Your task to perform on an android device: change the clock display to show seconds Image 0: 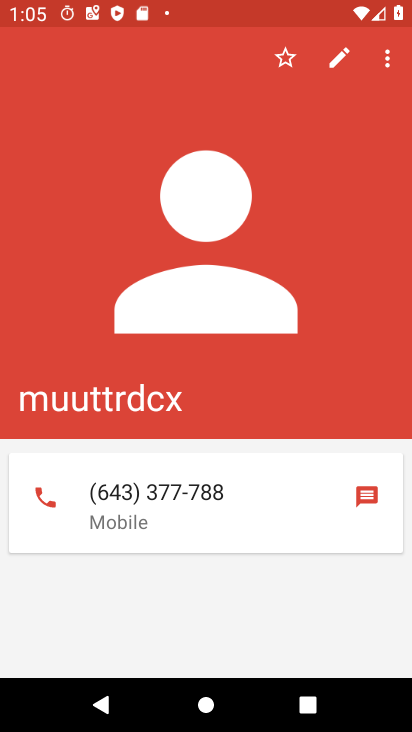
Step 0: press home button
Your task to perform on an android device: change the clock display to show seconds Image 1: 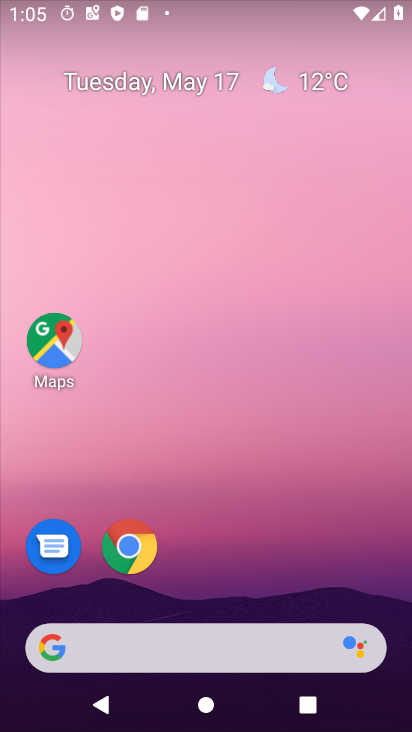
Step 1: drag from (200, 638) to (345, 96)
Your task to perform on an android device: change the clock display to show seconds Image 2: 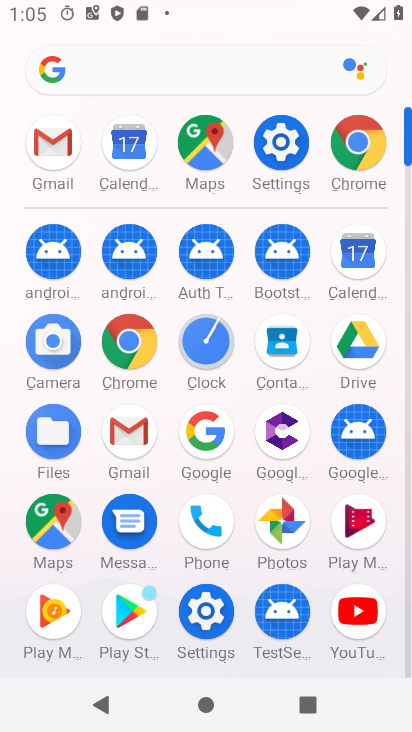
Step 2: click (208, 350)
Your task to perform on an android device: change the clock display to show seconds Image 3: 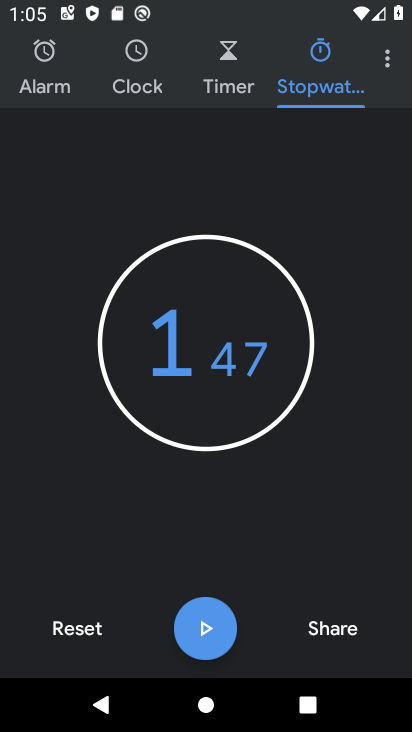
Step 3: click (389, 59)
Your task to perform on an android device: change the clock display to show seconds Image 4: 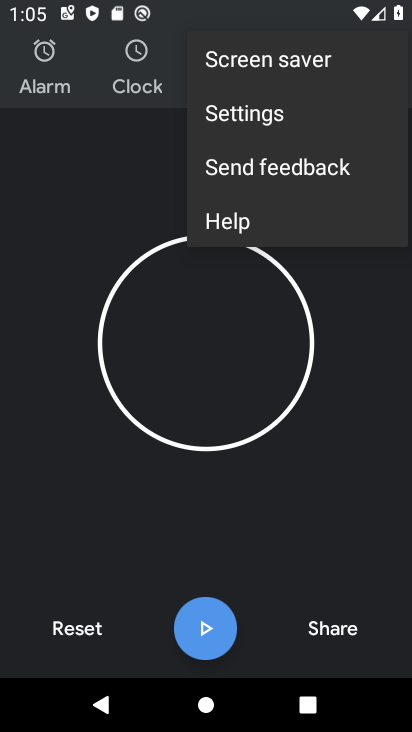
Step 4: click (263, 116)
Your task to perform on an android device: change the clock display to show seconds Image 5: 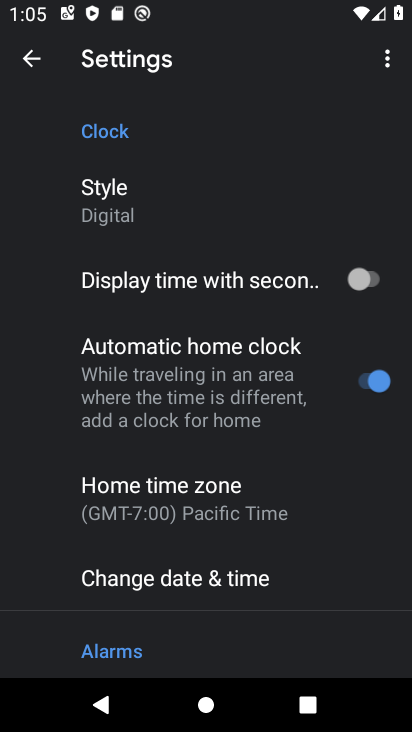
Step 5: click (374, 278)
Your task to perform on an android device: change the clock display to show seconds Image 6: 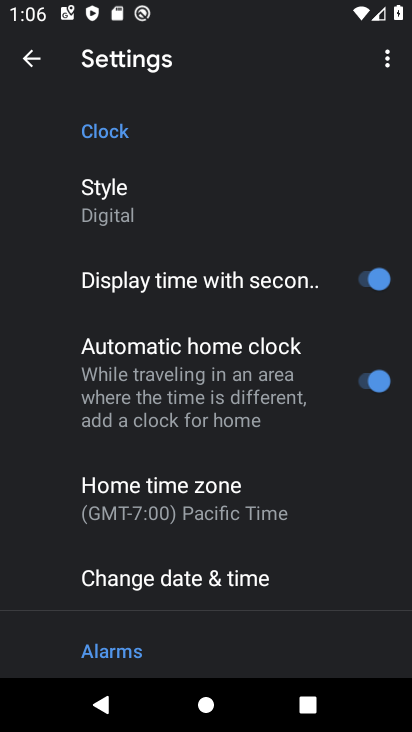
Step 6: task complete